Your task to perform on an android device: change timer sound Image 0: 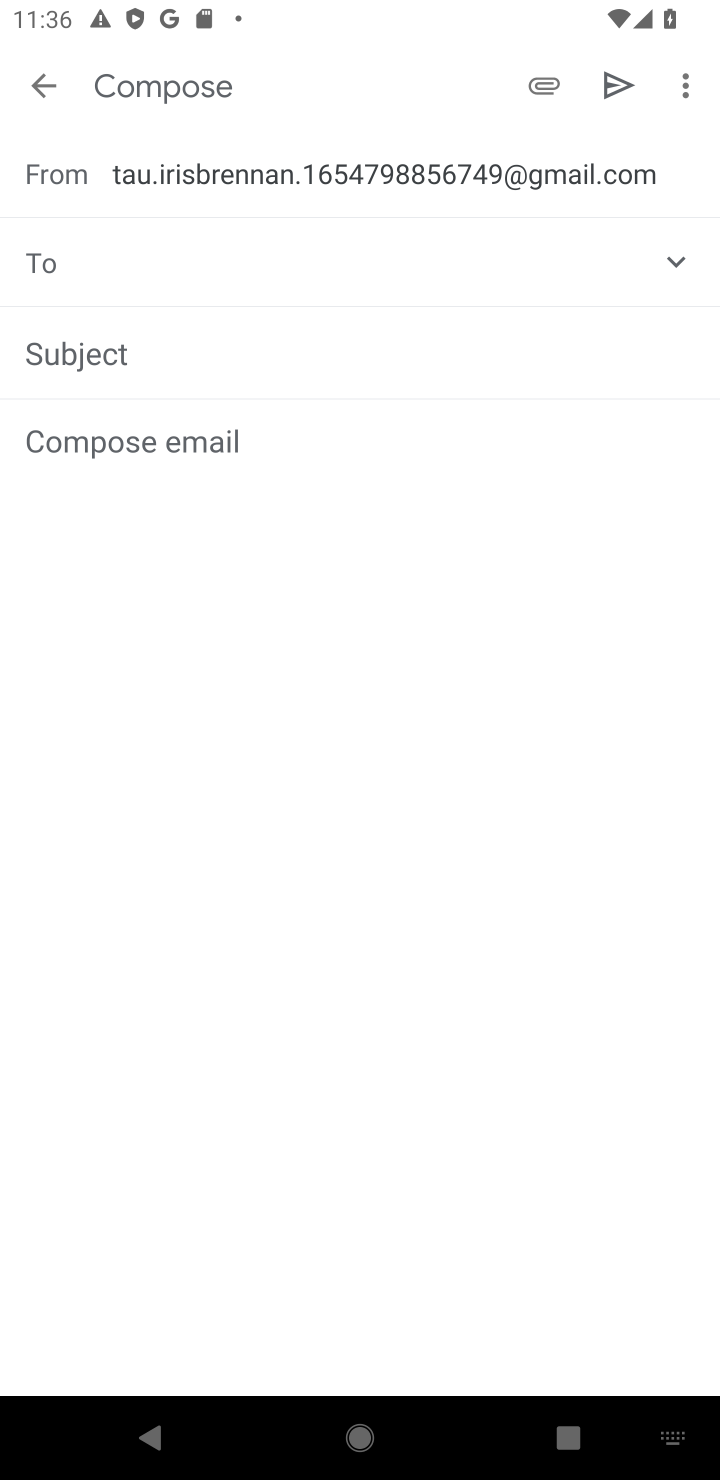
Step 0: press home button
Your task to perform on an android device: change timer sound Image 1: 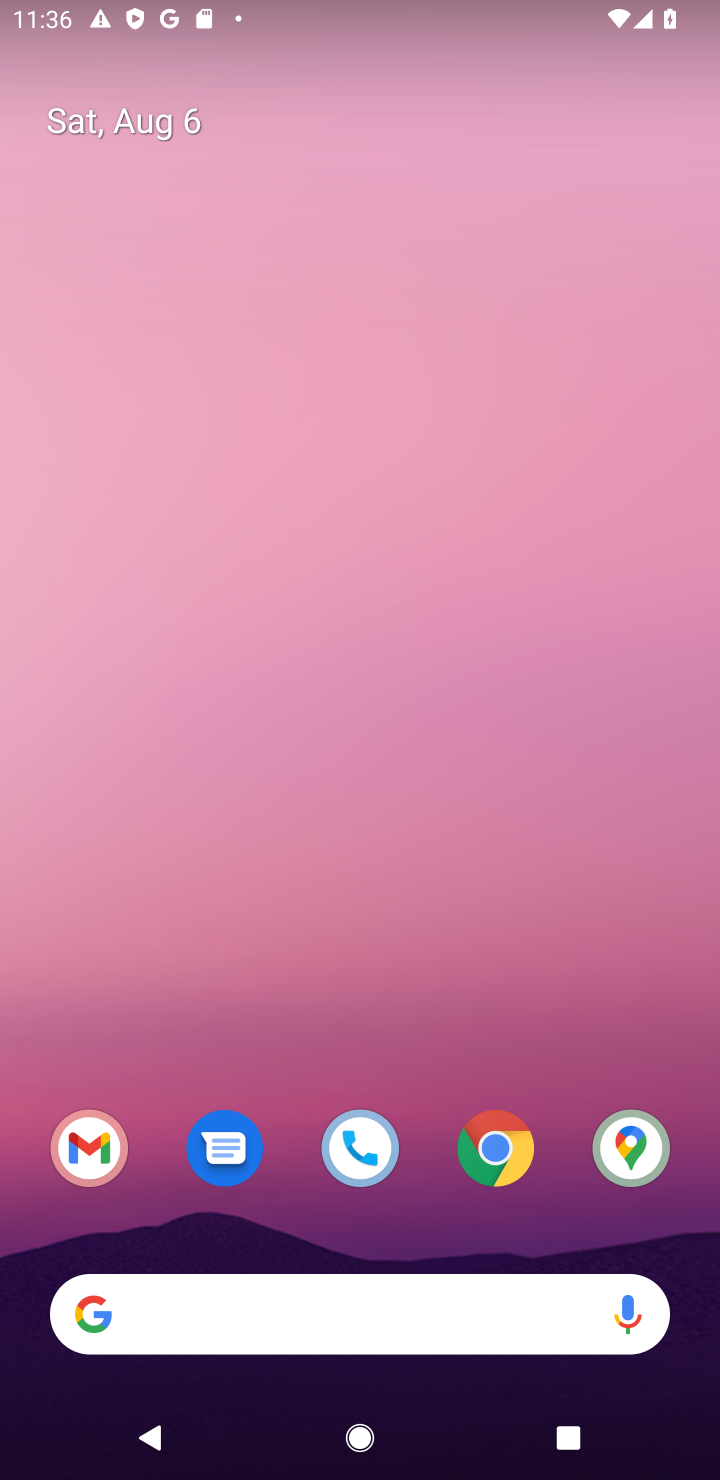
Step 1: drag from (361, 1031) to (361, 72)
Your task to perform on an android device: change timer sound Image 2: 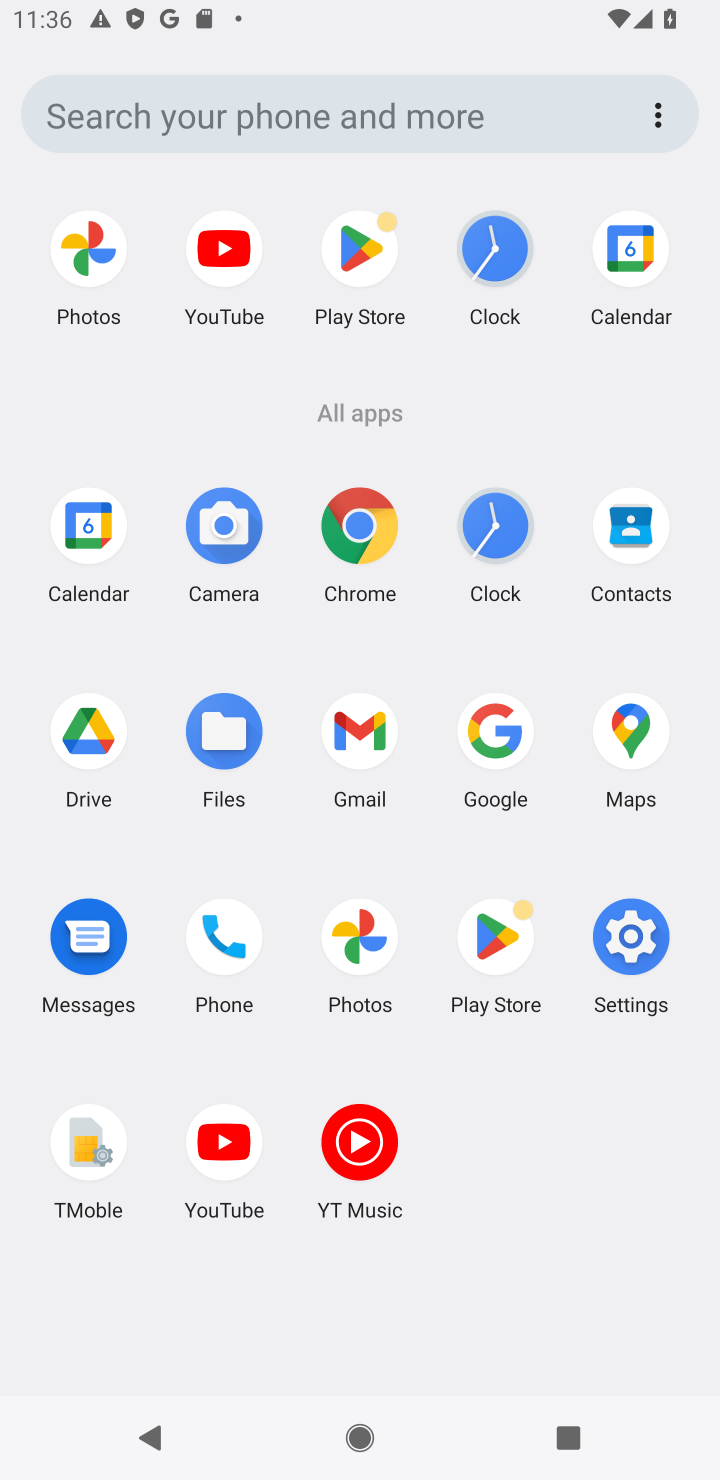
Step 2: click (503, 243)
Your task to perform on an android device: change timer sound Image 3: 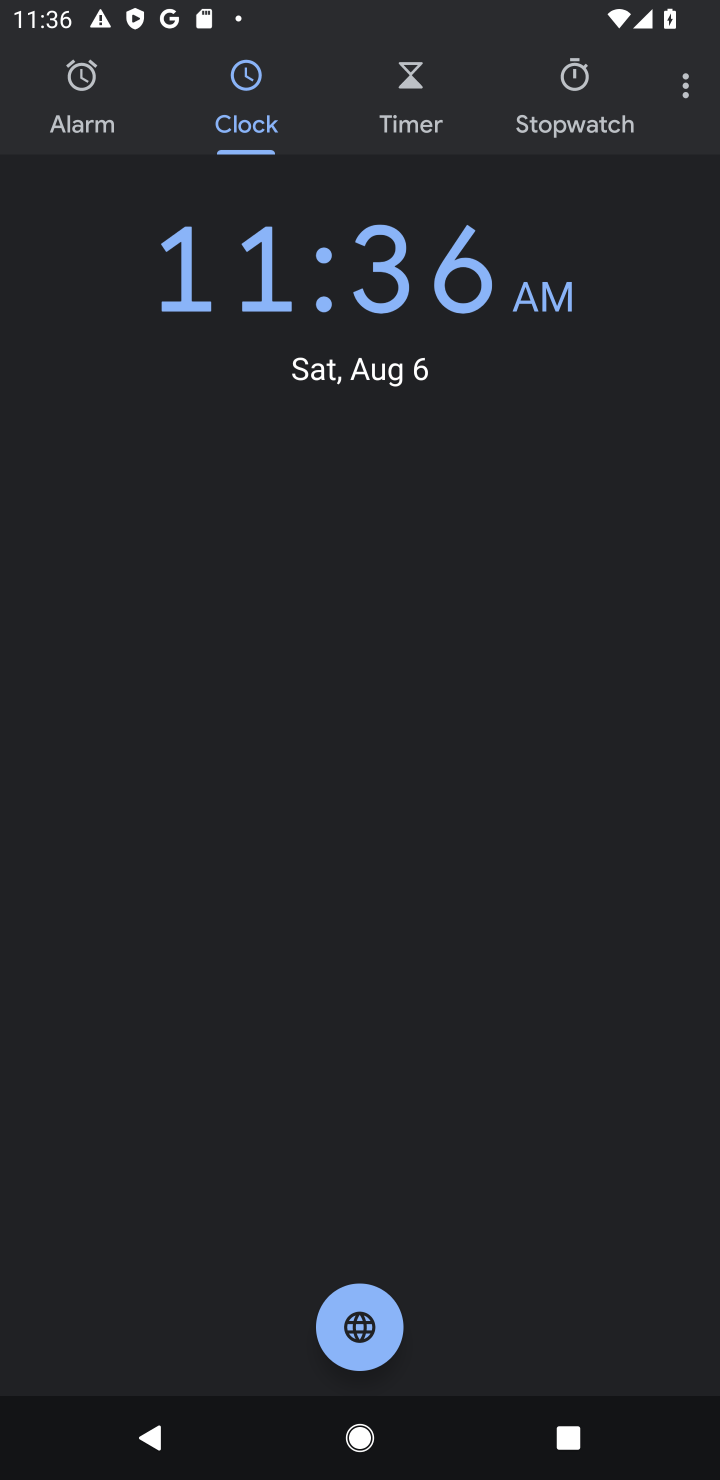
Step 3: click (682, 86)
Your task to perform on an android device: change timer sound Image 4: 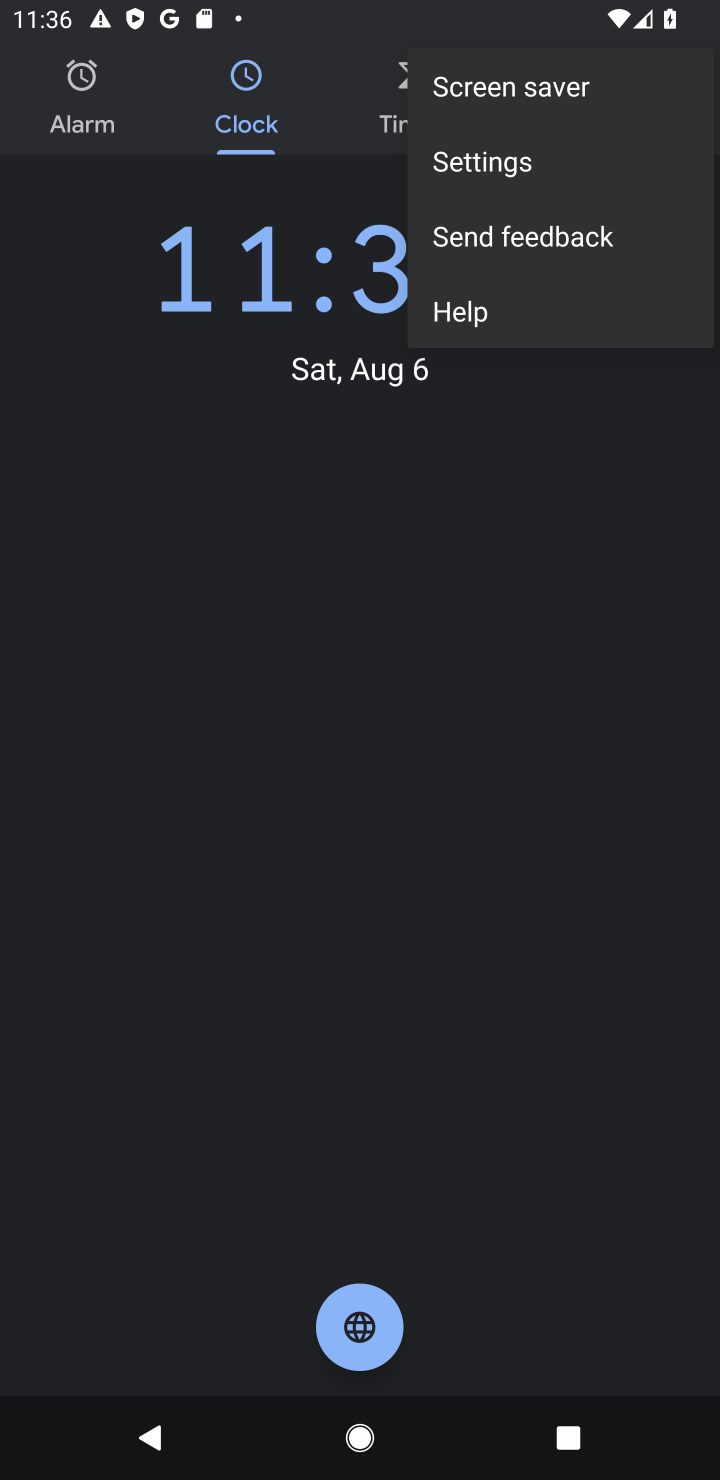
Step 4: click (526, 152)
Your task to perform on an android device: change timer sound Image 5: 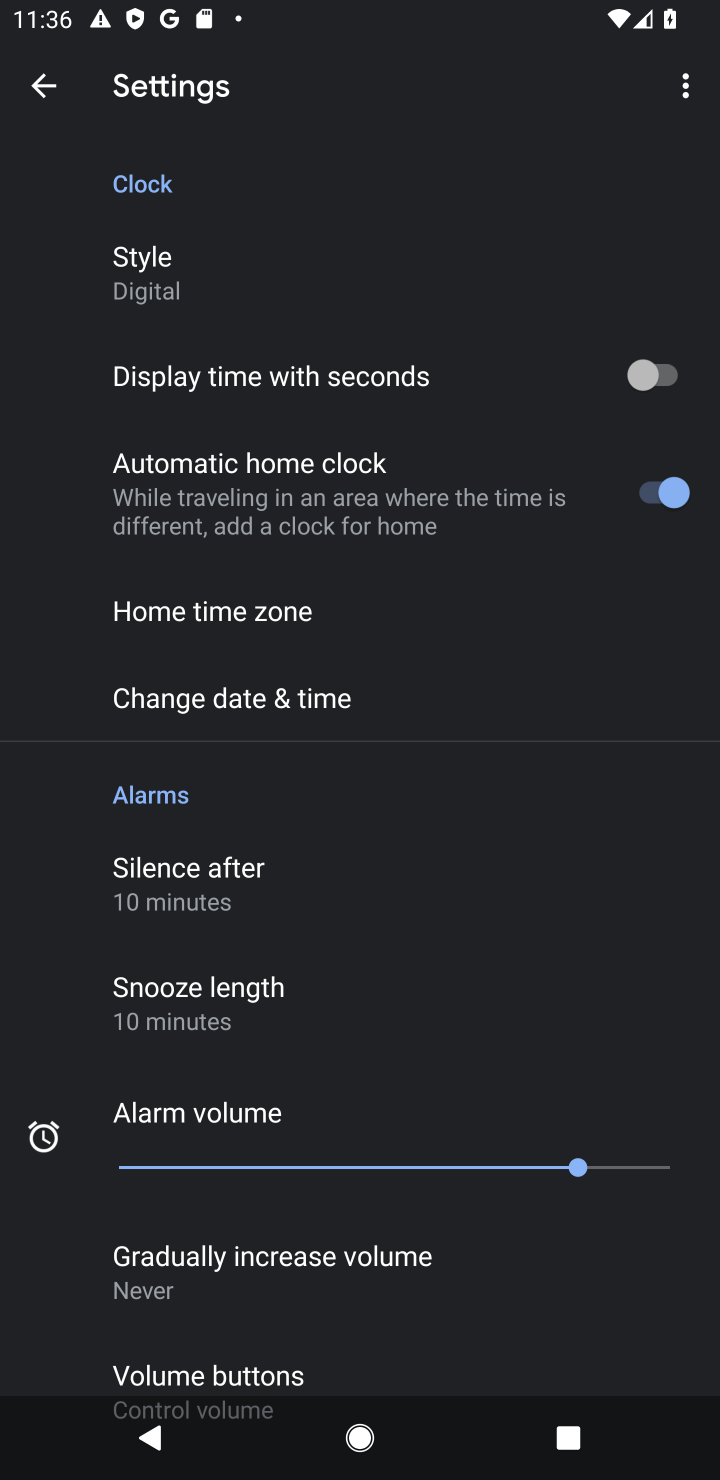
Step 5: drag from (360, 1202) to (337, 538)
Your task to perform on an android device: change timer sound Image 6: 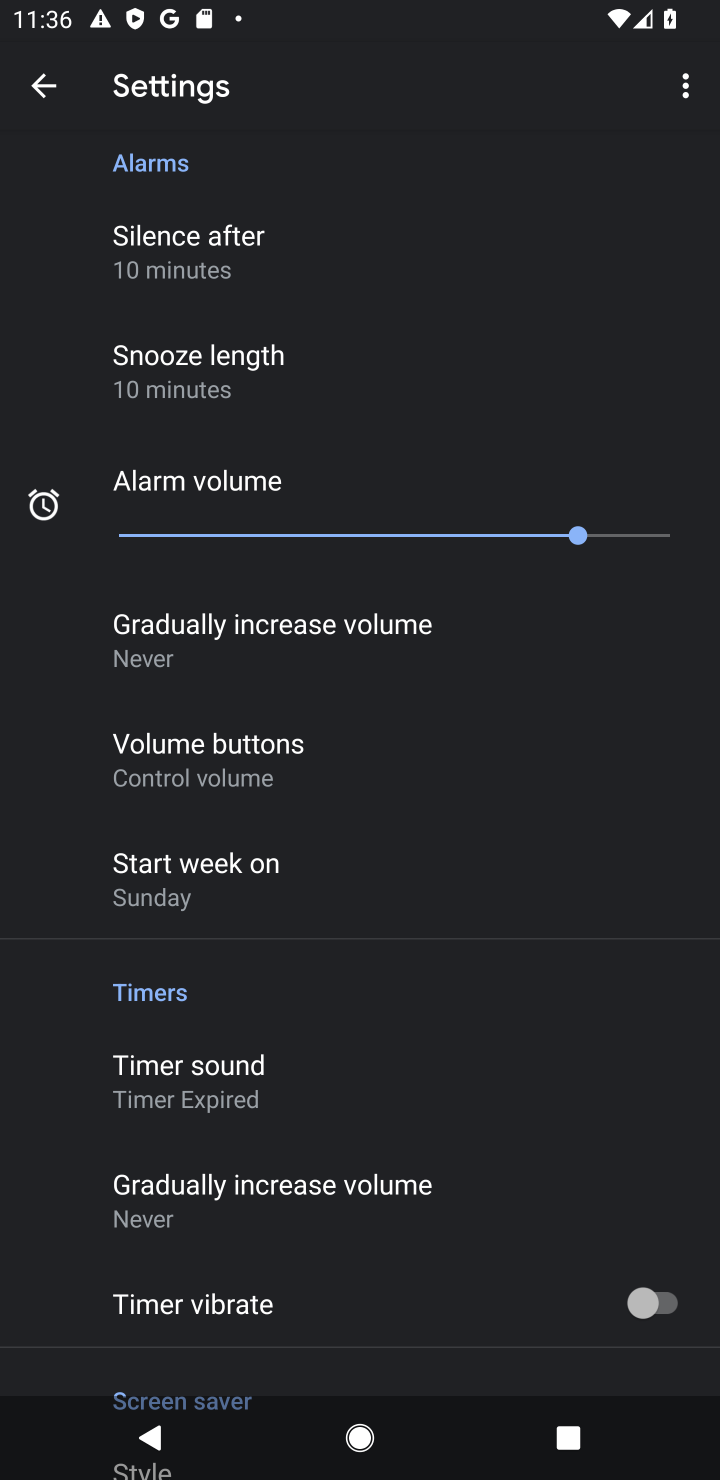
Step 6: click (224, 1066)
Your task to perform on an android device: change timer sound Image 7: 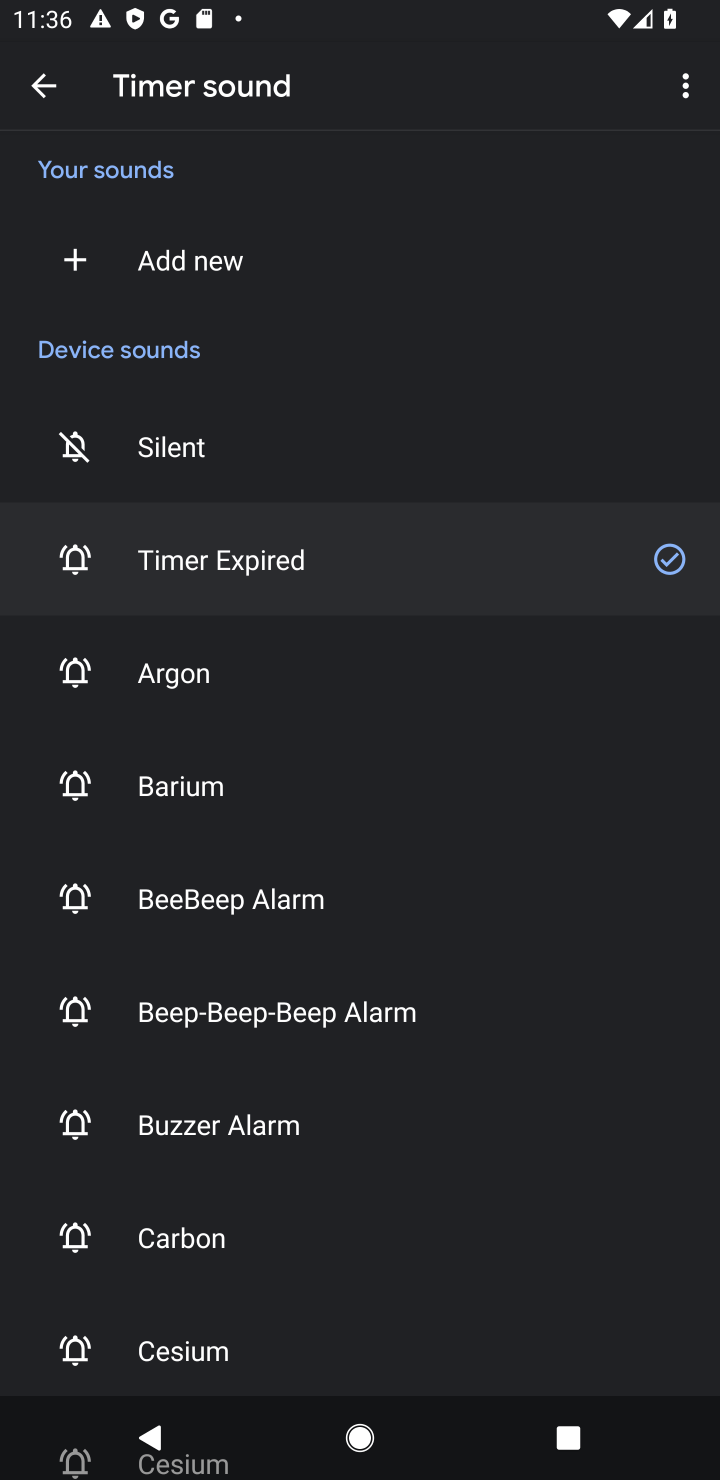
Step 7: click (179, 767)
Your task to perform on an android device: change timer sound Image 8: 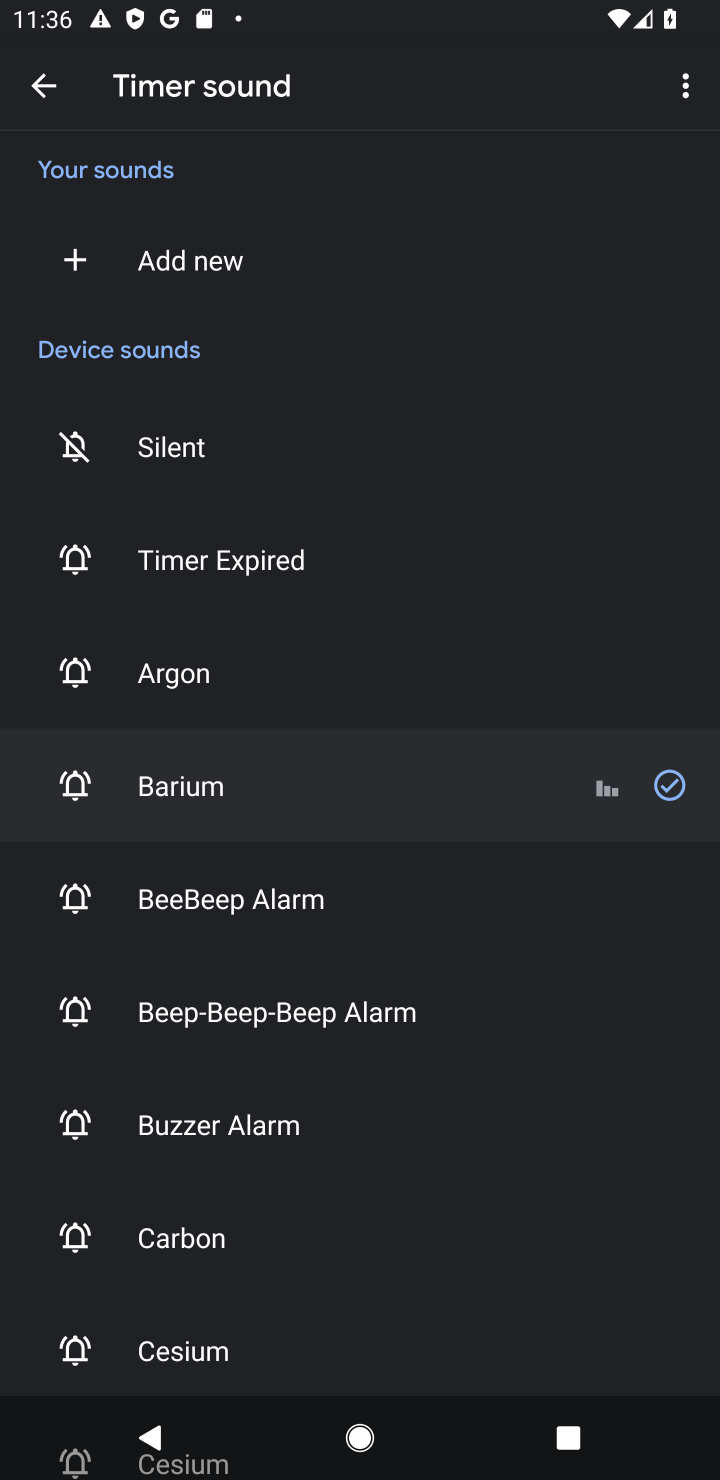
Step 8: task complete